Your task to perform on an android device: When is my next meeting? Image 0: 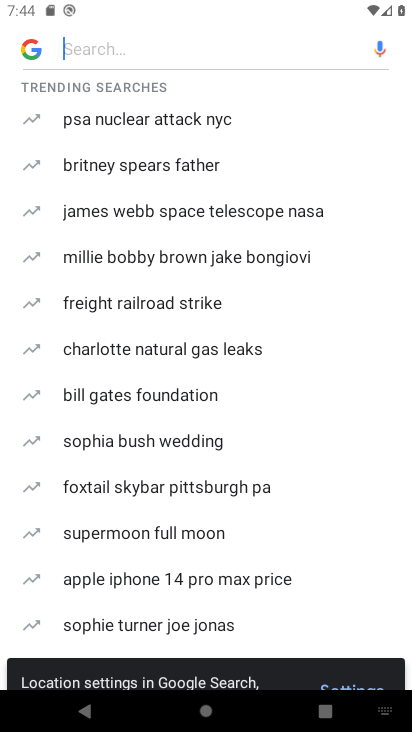
Step 0: press back button
Your task to perform on an android device: When is my next meeting? Image 1: 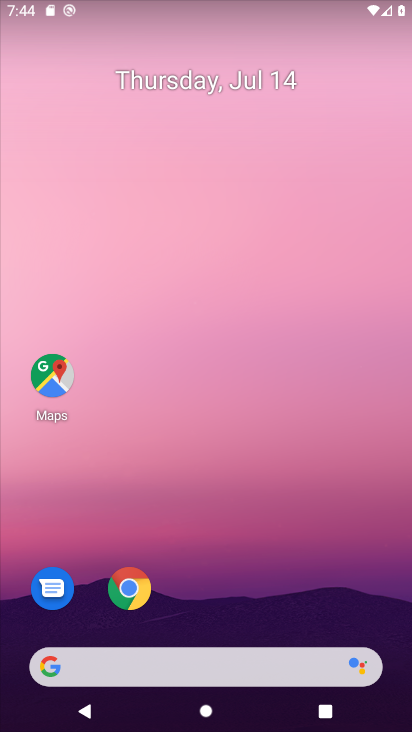
Step 1: drag from (229, 624) to (163, 154)
Your task to perform on an android device: When is my next meeting? Image 2: 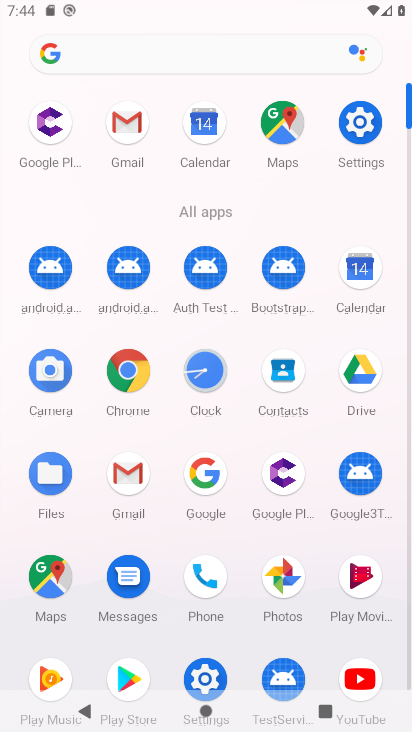
Step 2: click (191, 135)
Your task to perform on an android device: When is my next meeting? Image 3: 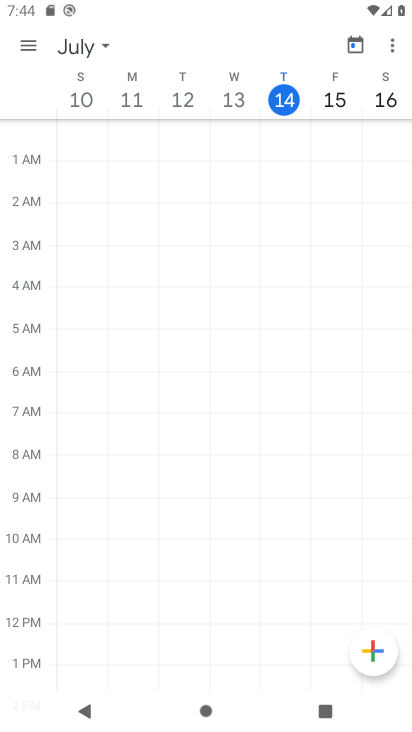
Step 3: click (323, 96)
Your task to perform on an android device: When is my next meeting? Image 4: 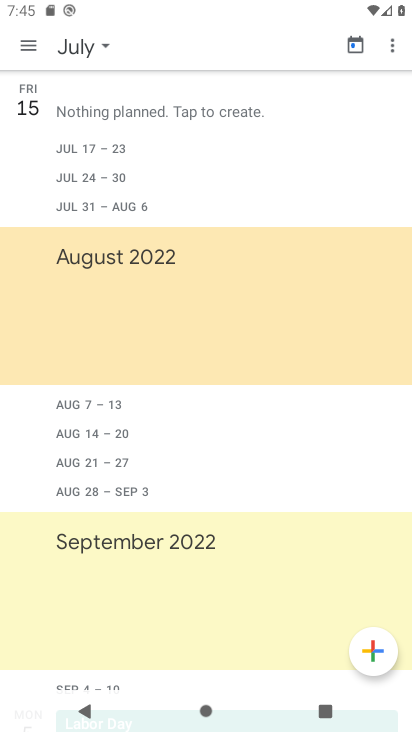
Step 4: click (349, 34)
Your task to perform on an android device: When is my next meeting? Image 5: 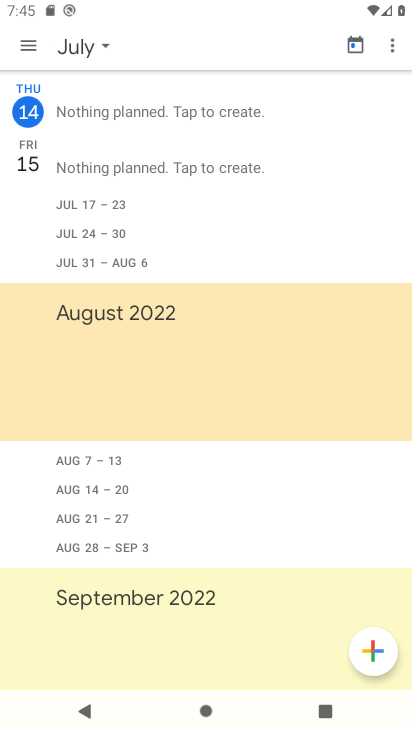
Step 5: click (348, 37)
Your task to perform on an android device: When is my next meeting? Image 6: 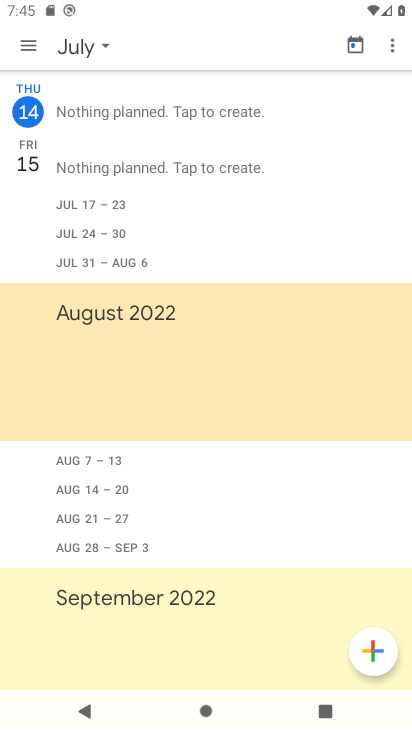
Step 6: click (39, 40)
Your task to perform on an android device: When is my next meeting? Image 7: 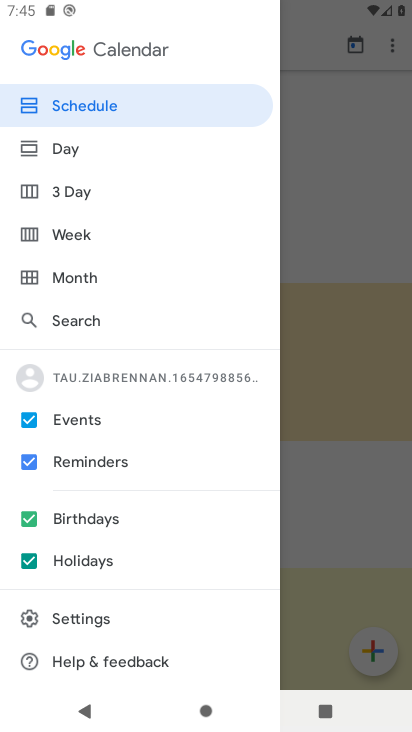
Step 7: click (75, 230)
Your task to perform on an android device: When is my next meeting? Image 8: 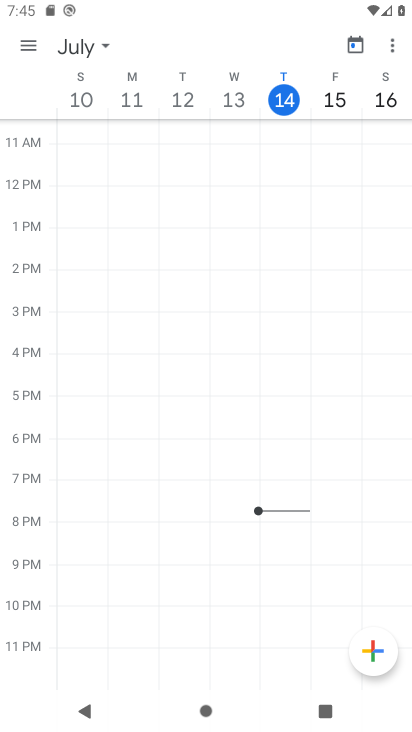
Step 8: click (390, 97)
Your task to perform on an android device: When is my next meeting? Image 9: 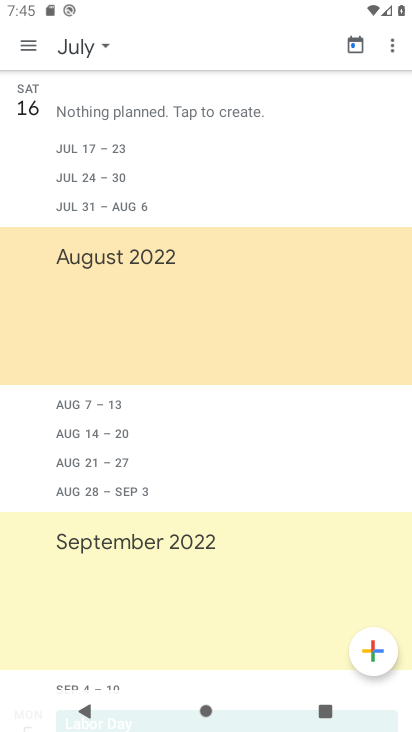
Step 9: click (73, 183)
Your task to perform on an android device: When is my next meeting? Image 10: 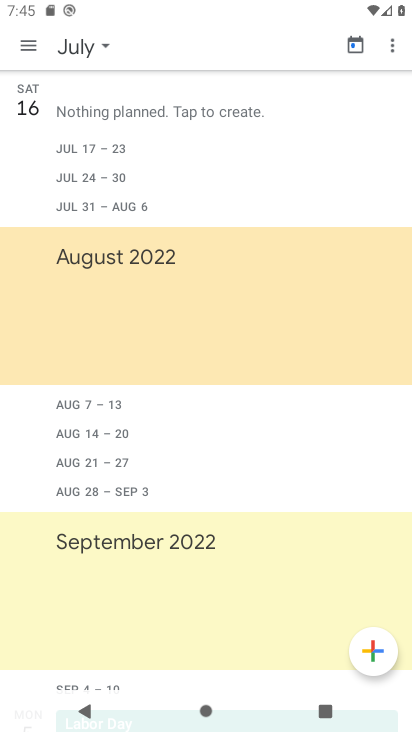
Step 10: click (71, 174)
Your task to perform on an android device: When is my next meeting? Image 11: 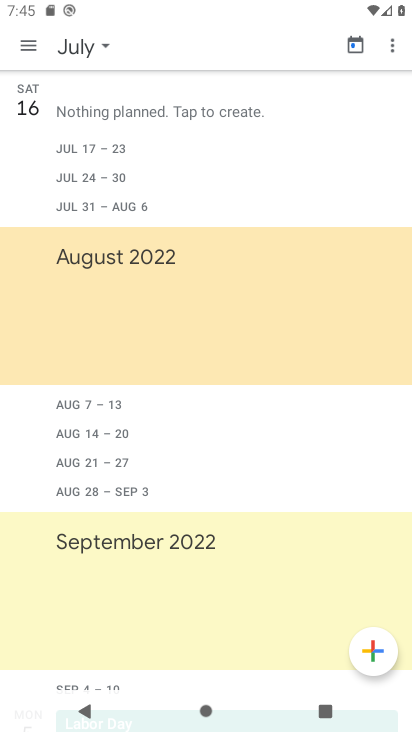
Step 11: click (71, 139)
Your task to perform on an android device: When is my next meeting? Image 12: 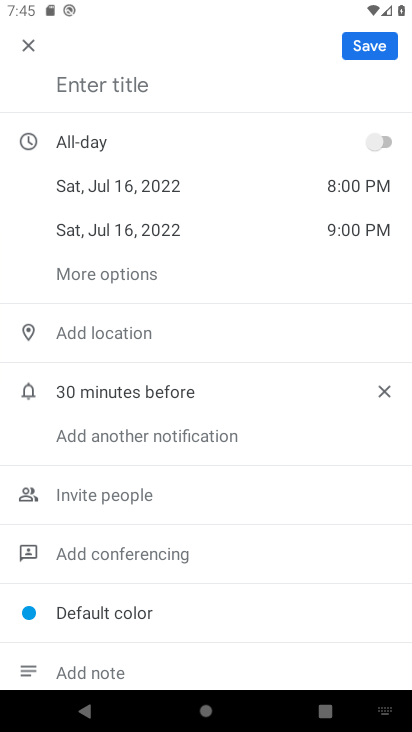
Step 12: click (34, 52)
Your task to perform on an android device: When is my next meeting? Image 13: 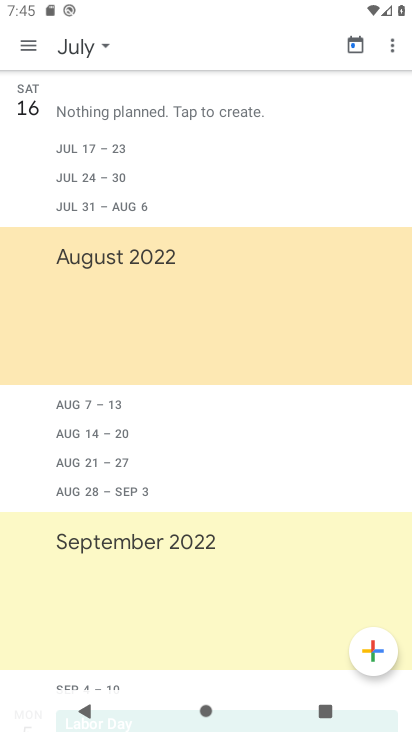
Step 13: task complete